Your task to perform on an android device: open the mobile data screen to see how much data has been used Image 0: 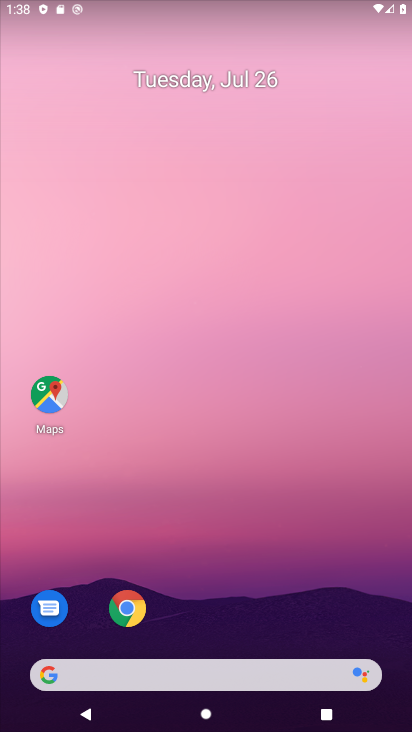
Step 0: press home button
Your task to perform on an android device: open the mobile data screen to see how much data has been used Image 1: 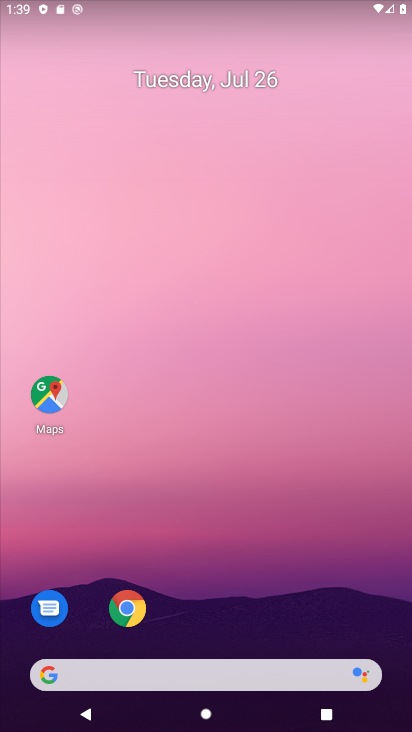
Step 1: drag from (211, 584) to (242, 1)
Your task to perform on an android device: open the mobile data screen to see how much data has been used Image 2: 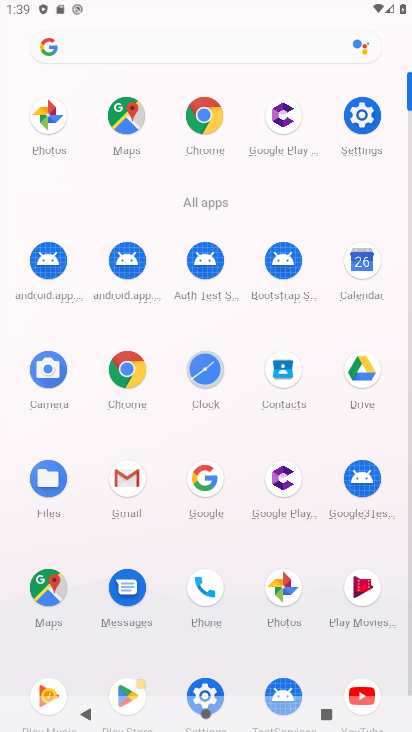
Step 2: drag from (228, 611) to (259, 32)
Your task to perform on an android device: open the mobile data screen to see how much data has been used Image 3: 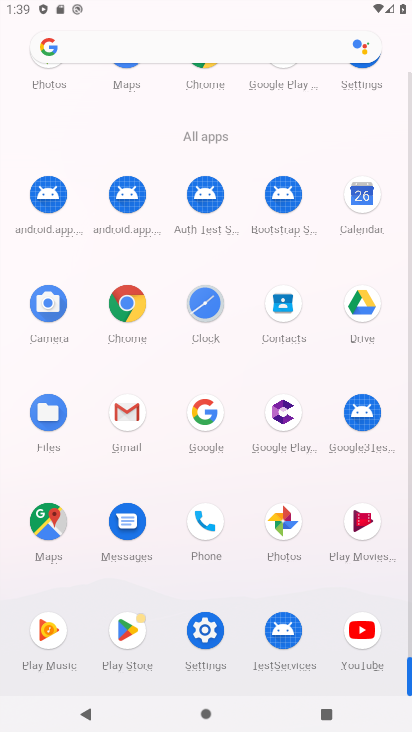
Step 3: click (195, 616)
Your task to perform on an android device: open the mobile data screen to see how much data has been used Image 4: 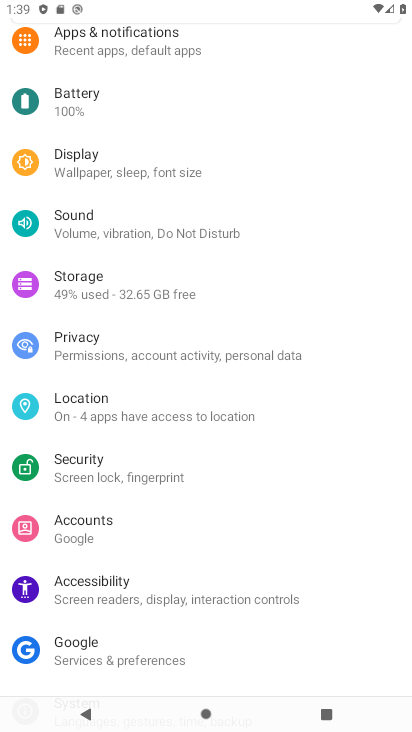
Step 4: drag from (182, 77) to (152, 464)
Your task to perform on an android device: open the mobile data screen to see how much data has been used Image 5: 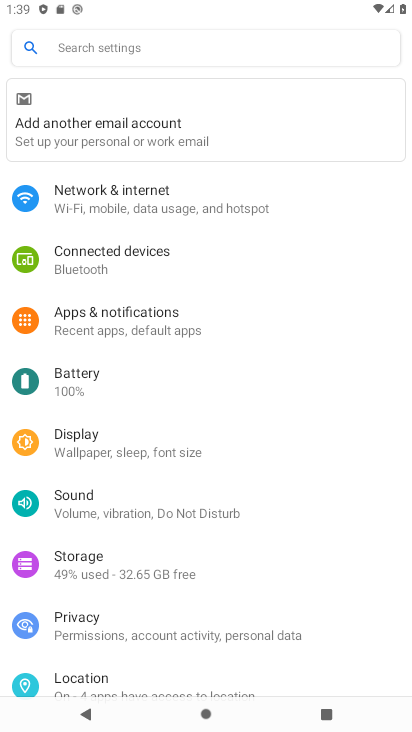
Step 5: click (99, 196)
Your task to perform on an android device: open the mobile data screen to see how much data has been used Image 6: 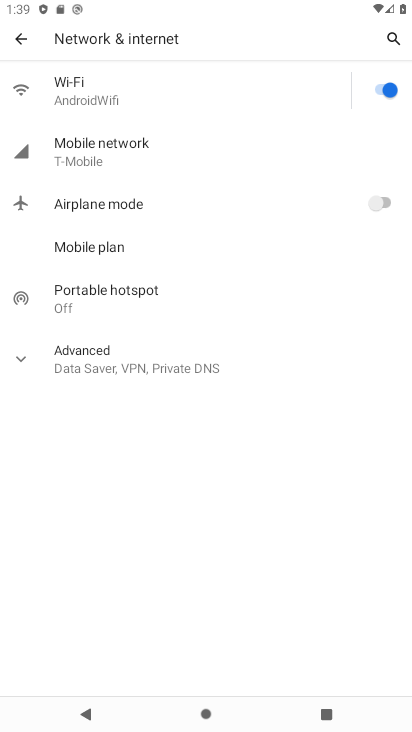
Step 6: click (87, 147)
Your task to perform on an android device: open the mobile data screen to see how much data has been used Image 7: 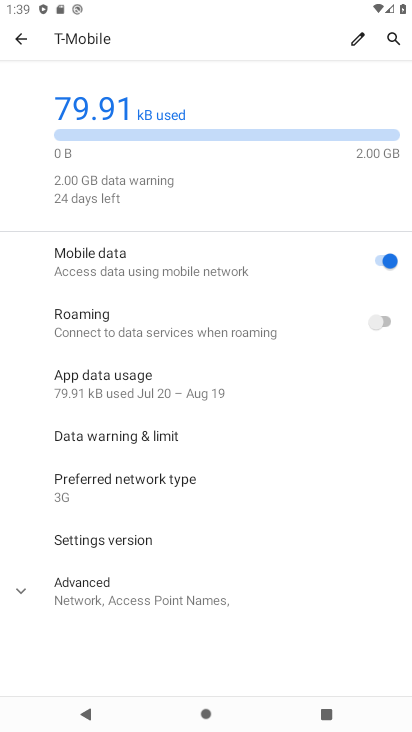
Step 7: click (99, 390)
Your task to perform on an android device: open the mobile data screen to see how much data has been used Image 8: 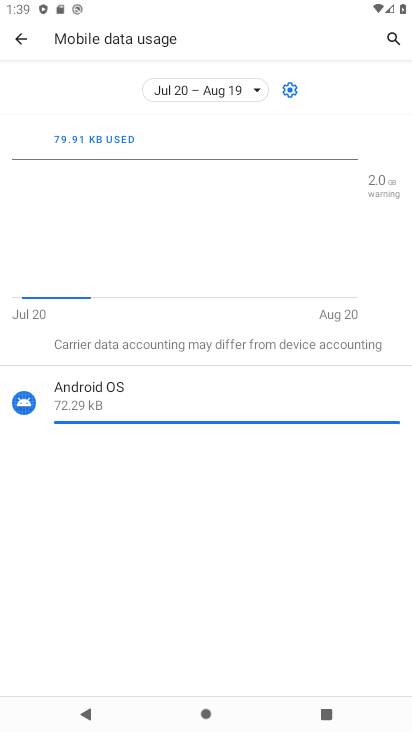
Step 8: task complete